Your task to perform on an android device: make emails show in primary in the gmail app Image 0: 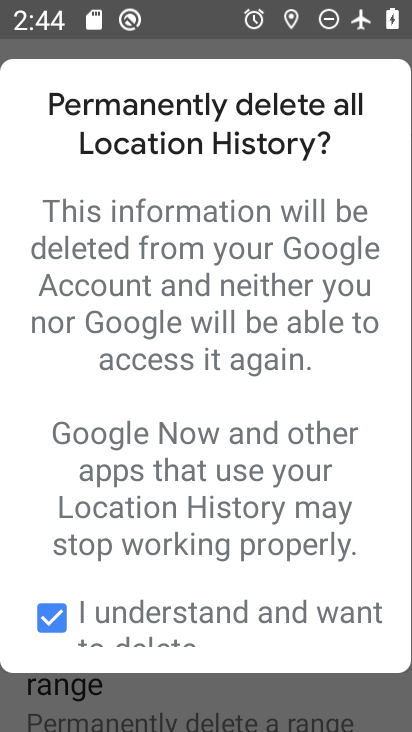
Step 0: drag from (303, 450) to (336, 151)
Your task to perform on an android device: make emails show in primary in the gmail app Image 1: 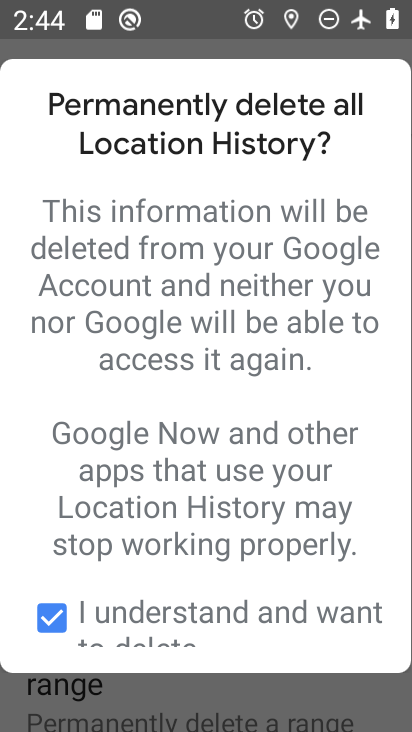
Step 1: press home button
Your task to perform on an android device: make emails show in primary in the gmail app Image 2: 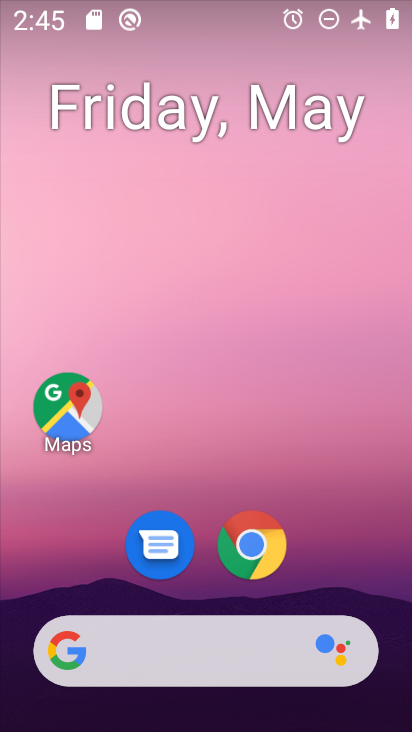
Step 2: drag from (294, 425) to (254, 195)
Your task to perform on an android device: make emails show in primary in the gmail app Image 3: 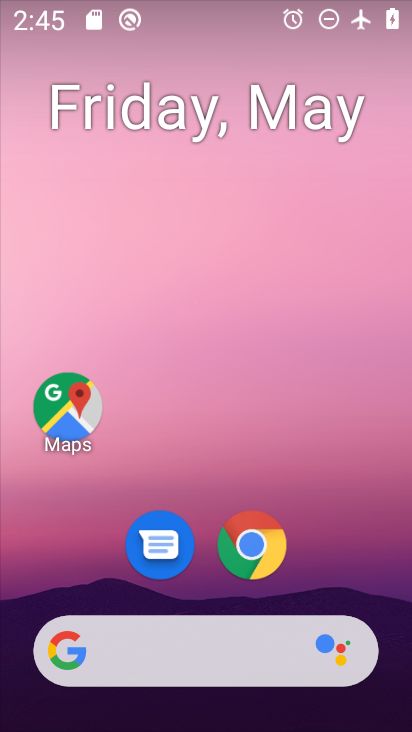
Step 3: drag from (324, 562) to (306, 231)
Your task to perform on an android device: make emails show in primary in the gmail app Image 4: 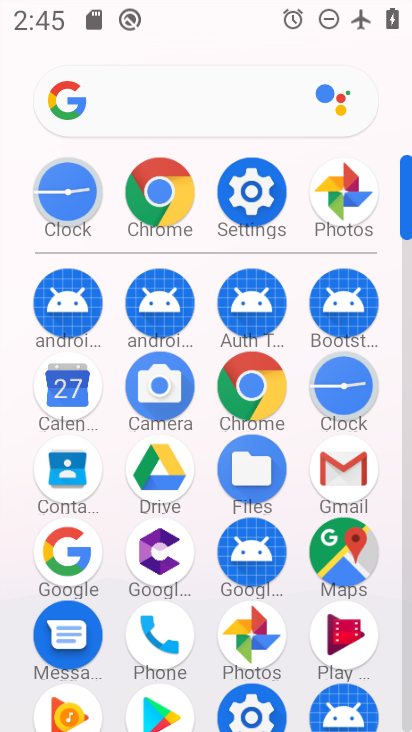
Step 4: click (332, 454)
Your task to perform on an android device: make emails show in primary in the gmail app Image 5: 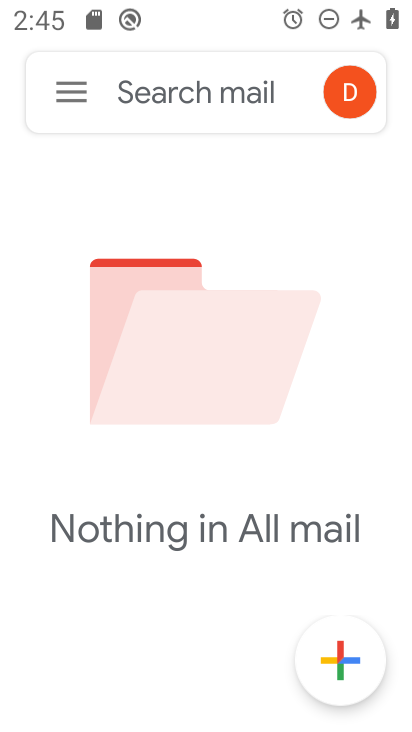
Step 5: click (62, 88)
Your task to perform on an android device: make emails show in primary in the gmail app Image 6: 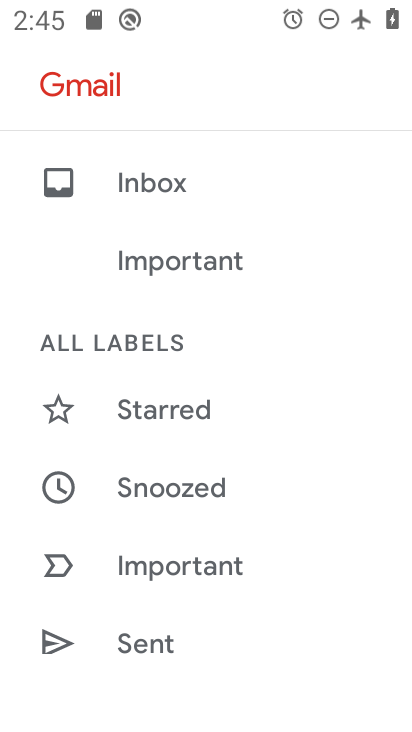
Step 6: drag from (179, 644) to (189, 214)
Your task to perform on an android device: make emails show in primary in the gmail app Image 7: 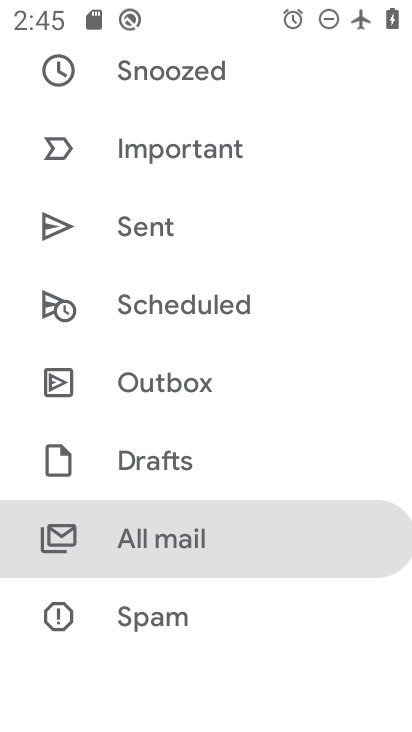
Step 7: drag from (223, 597) to (232, 106)
Your task to perform on an android device: make emails show in primary in the gmail app Image 8: 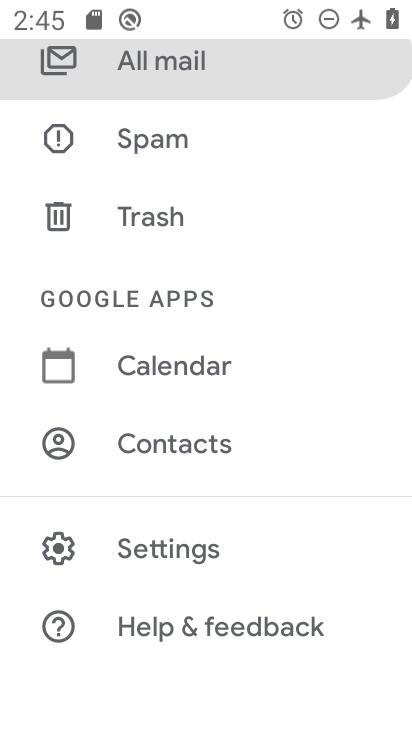
Step 8: click (198, 554)
Your task to perform on an android device: make emails show in primary in the gmail app Image 9: 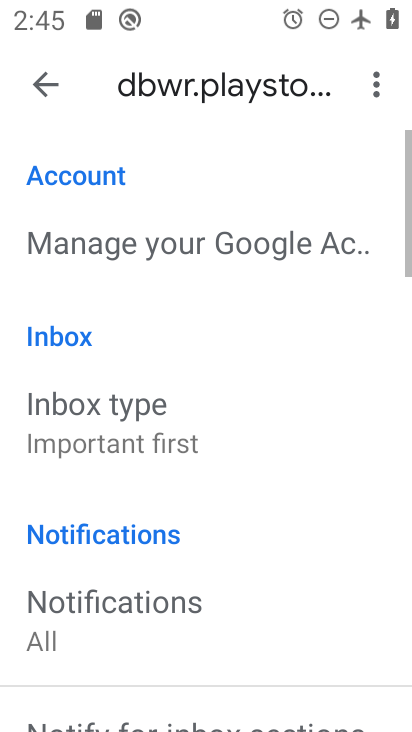
Step 9: drag from (216, 631) to (185, 166)
Your task to perform on an android device: make emails show in primary in the gmail app Image 10: 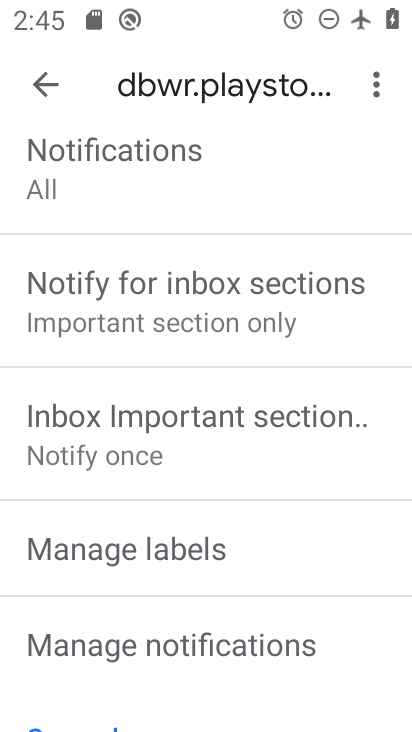
Step 10: drag from (166, 207) to (180, 662)
Your task to perform on an android device: make emails show in primary in the gmail app Image 11: 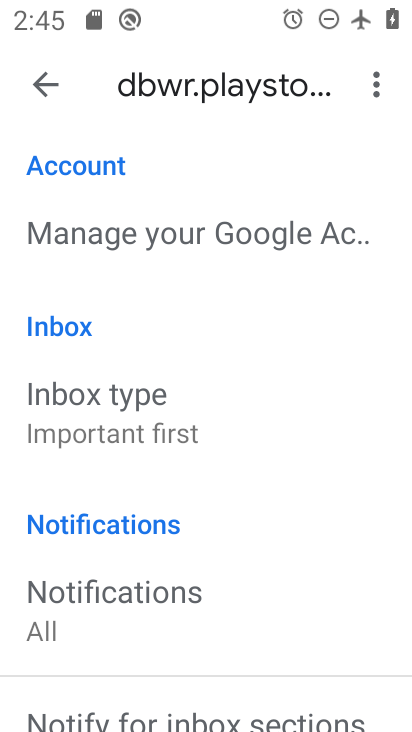
Step 11: click (123, 417)
Your task to perform on an android device: make emails show in primary in the gmail app Image 12: 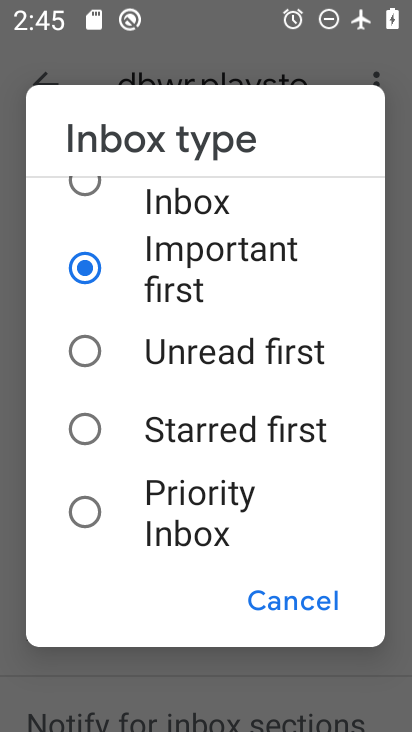
Step 12: click (312, 600)
Your task to perform on an android device: make emails show in primary in the gmail app Image 13: 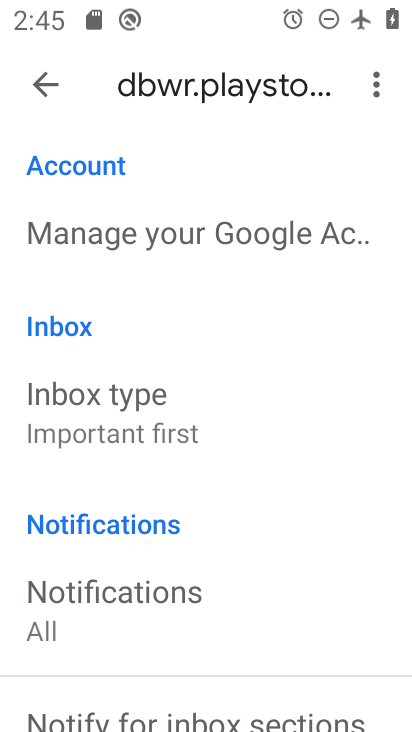
Step 13: task complete